Your task to perform on an android device: empty trash in google photos Image 0: 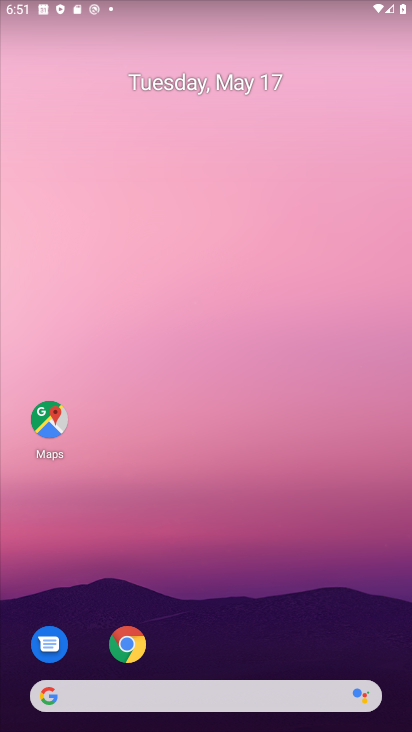
Step 0: drag from (395, 629) to (199, 76)
Your task to perform on an android device: empty trash in google photos Image 1: 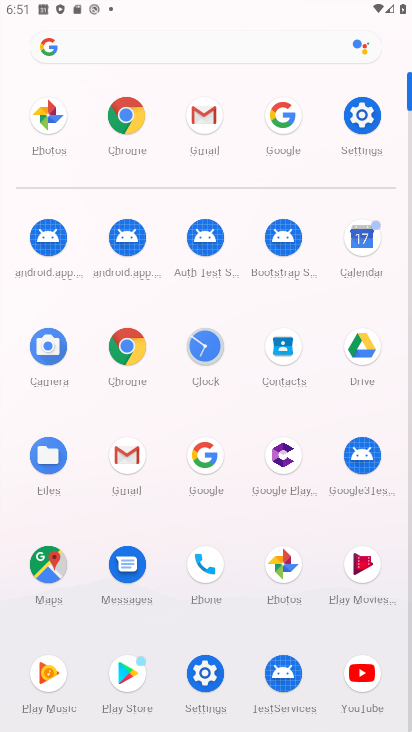
Step 1: click (295, 576)
Your task to perform on an android device: empty trash in google photos Image 2: 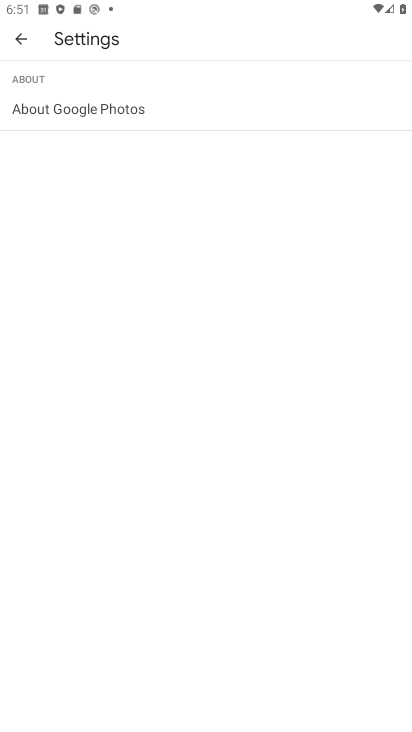
Step 2: press back button
Your task to perform on an android device: empty trash in google photos Image 3: 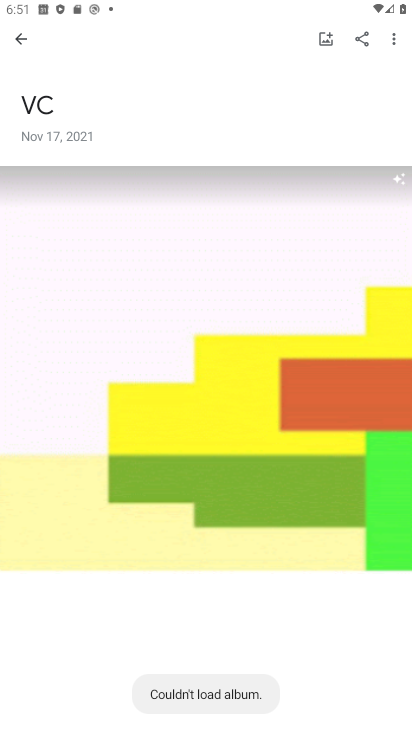
Step 3: press back button
Your task to perform on an android device: empty trash in google photos Image 4: 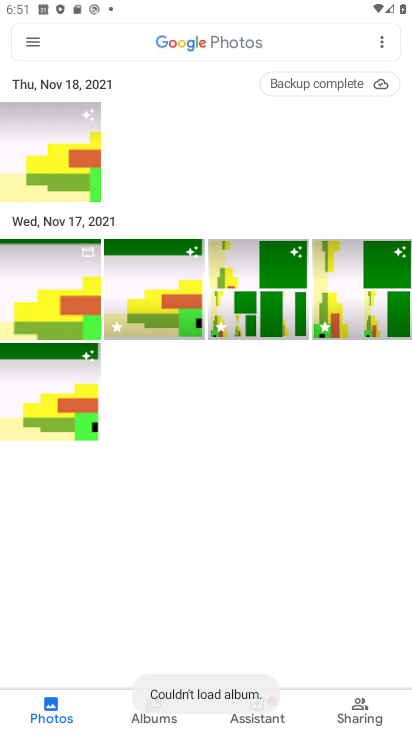
Step 4: click (41, 34)
Your task to perform on an android device: empty trash in google photos Image 5: 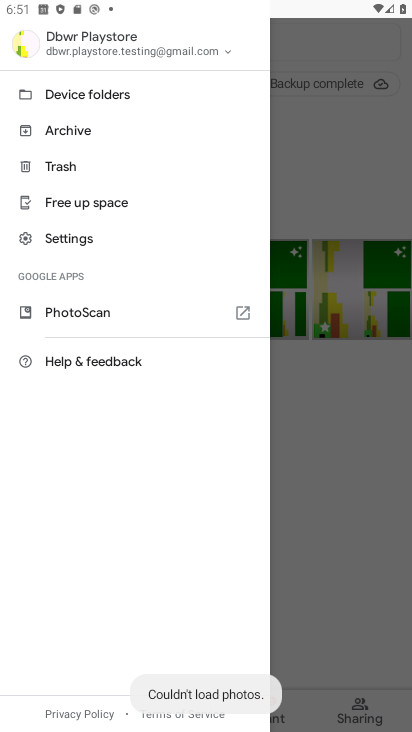
Step 5: click (87, 158)
Your task to perform on an android device: empty trash in google photos Image 6: 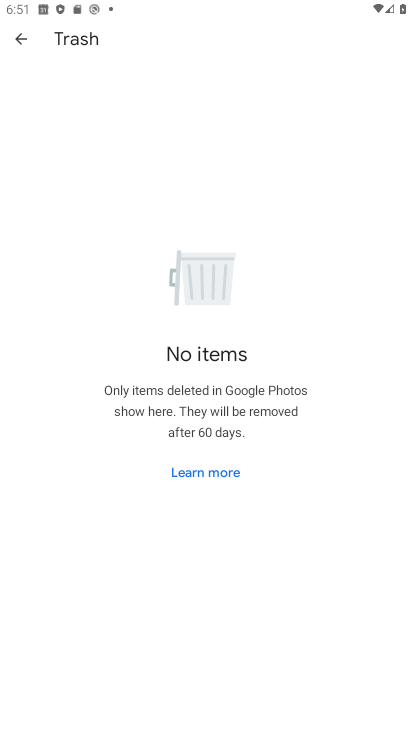
Step 6: task complete